Your task to perform on an android device: turn off picture-in-picture Image 0: 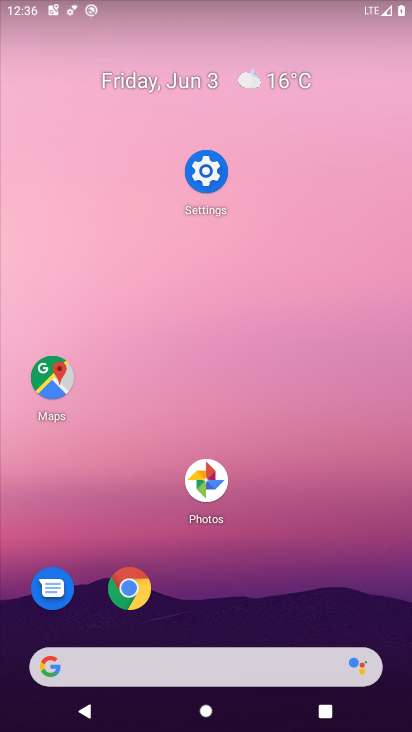
Step 0: click (215, 212)
Your task to perform on an android device: turn off picture-in-picture Image 1: 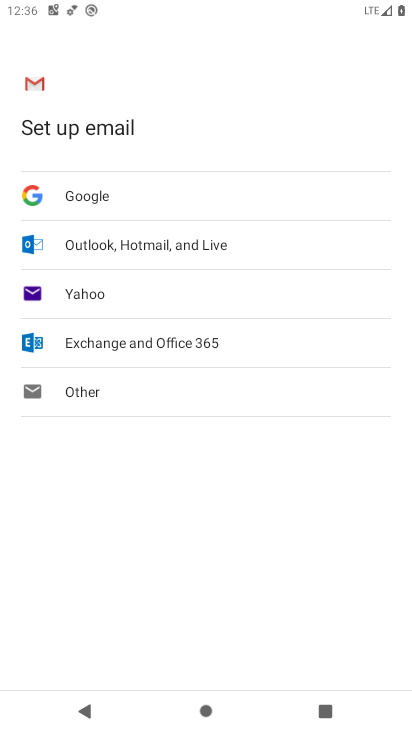
Step 1: drag from (193, 615) to (253, 184)
Your task to perform on an android device: turn off picture-in-picture Image 2: 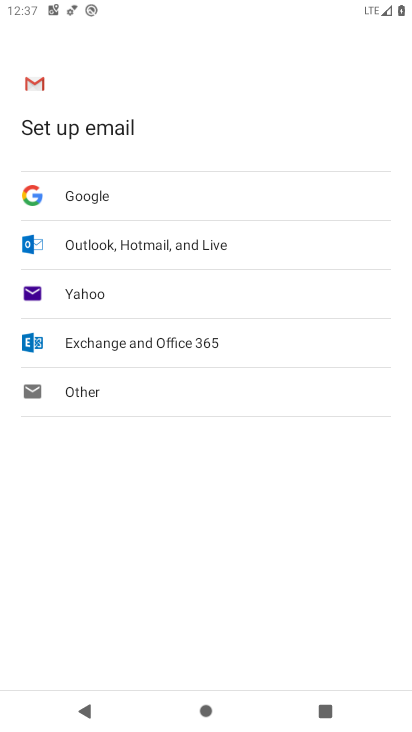
Step 2: drag from (177, 517) to (204, 269)
Your task to perform on an android device: turn off picture-in-picture Image 3: 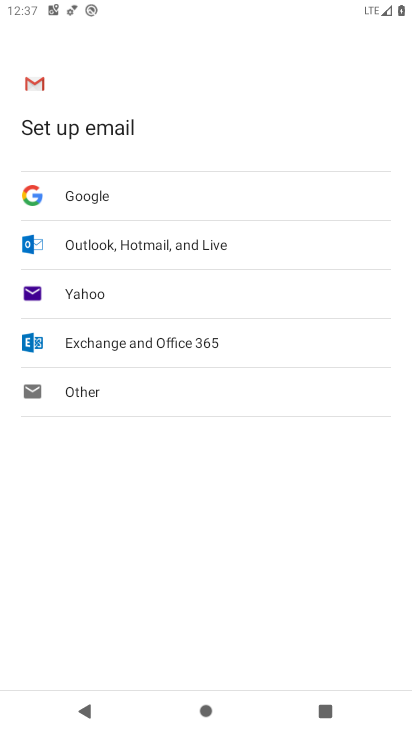
Step 3: drag from (185, 522) to (192, 269)
Your task to perform on an android device: turn off picture-in-picture Image 4: 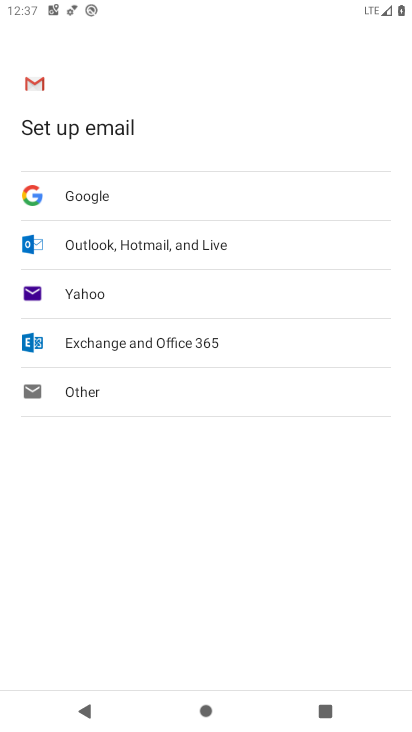
Step 4: drag from (222, 592) to (231, 533)
Your task to perform on an android device: turn off picture-in-picture Image 5: 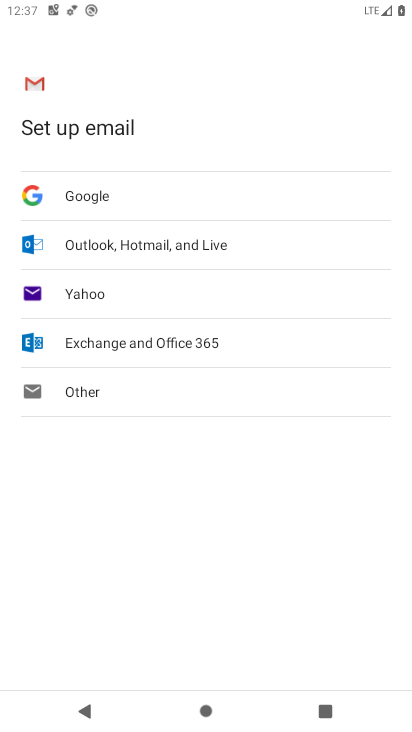
Step 5: drag from (215, 674) to (262, 409)
Your task to perform on an android device: turn off picture-in-picture Image 6: 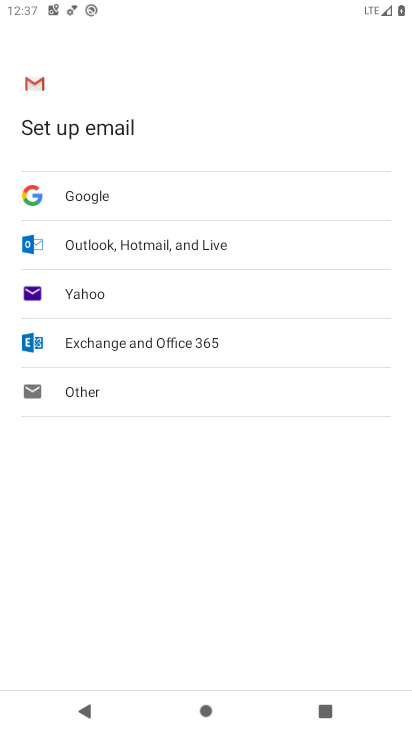
Step 6: drag from (261, 611) to (270, 372)
Your task to perform on an android device: turn off picture-in-picture Image 7: 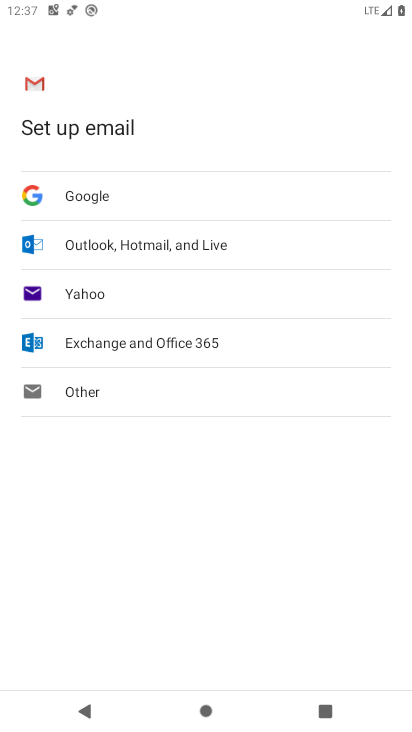
Step 7: drag from (204, 568) to (261, 335)
Your task to perform on an android device: turn off picture-in-picture Image 8: 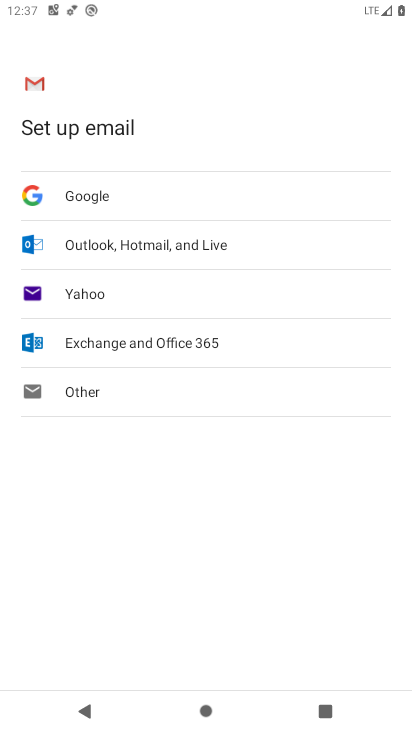
Step 8: press home button
Your task to perform on an android device: turn off picture-in-picture Image 9: 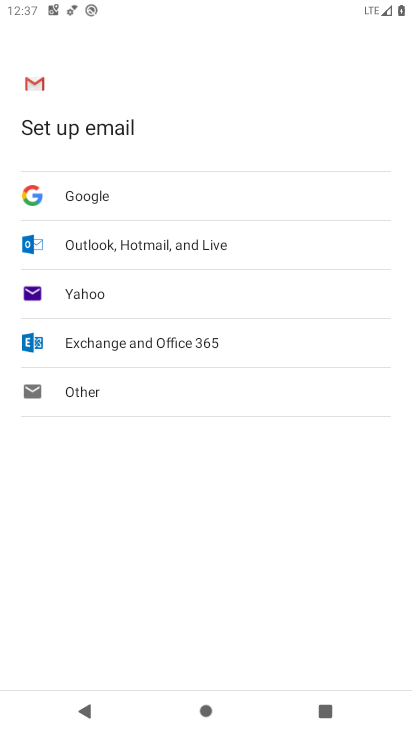
Step 9: drag from (232, 575) to (283, 49)
Your task to perform on an android device: turn off picture-in-picture Image 10: 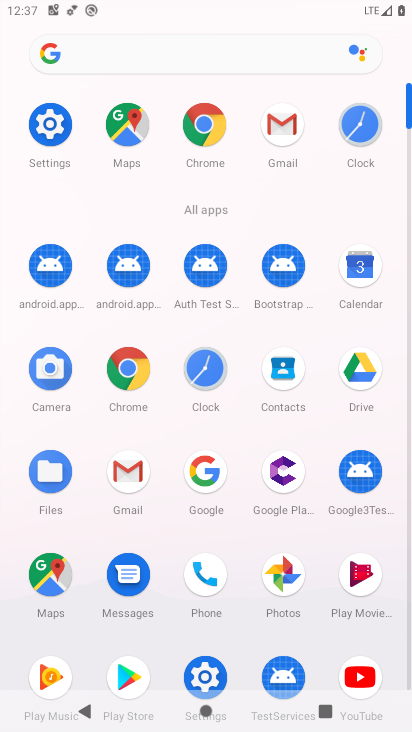
Step 10: click (51, 123)
Your task to perform on an android device: turn off picture-in-picture Image 11: 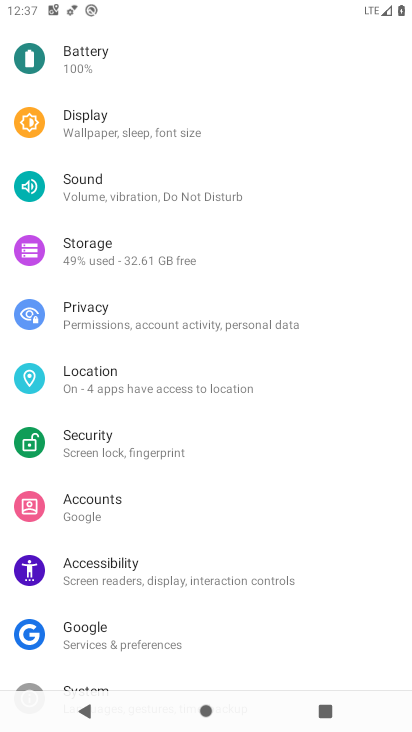
Step 11: drag from (224, 198) to (251, 728)
Your task to perform on an android device: turn off picture-in-picture Image 12: 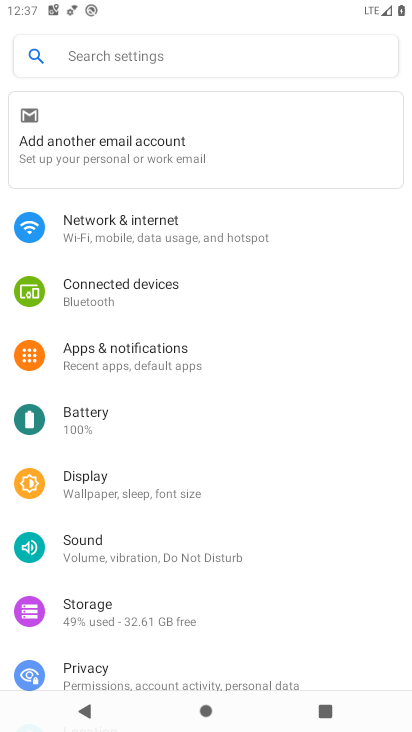
Step 12: click (254, 232)
Your task to perform on an android device: turn off picture-in-picture Image 13: 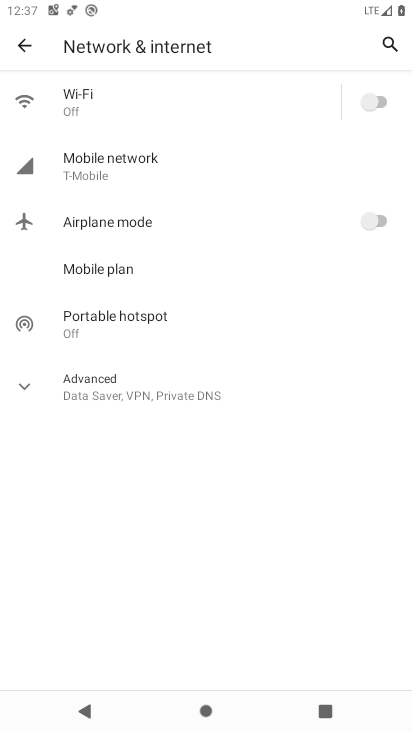
Step 13: click (113, 398)
Your task to perform on an android device: turn off picture-in-picture Image 14: 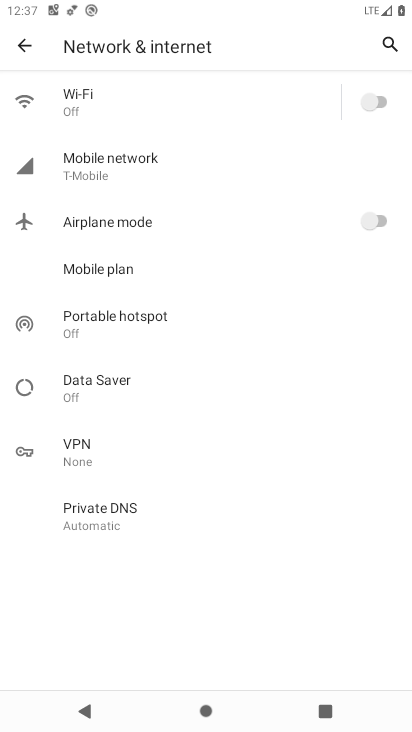
Step 14: click (12, 31)
Your task to perform on an android device: turn off picture-in-picture Image 15: 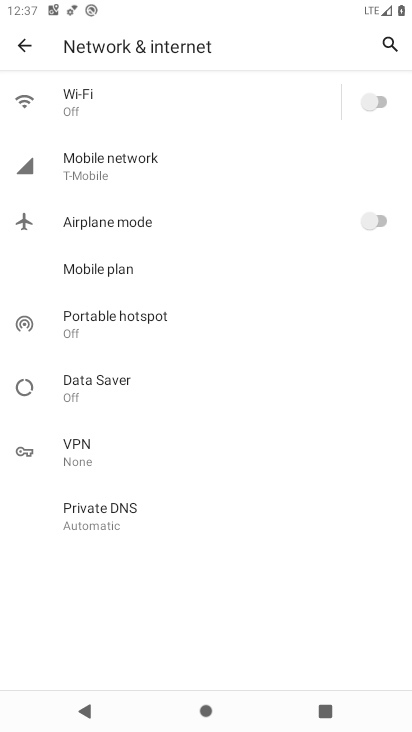
Step 15: click (22, 45)
Your task to perform on an android device: turn off picture-in-picture Image 16: 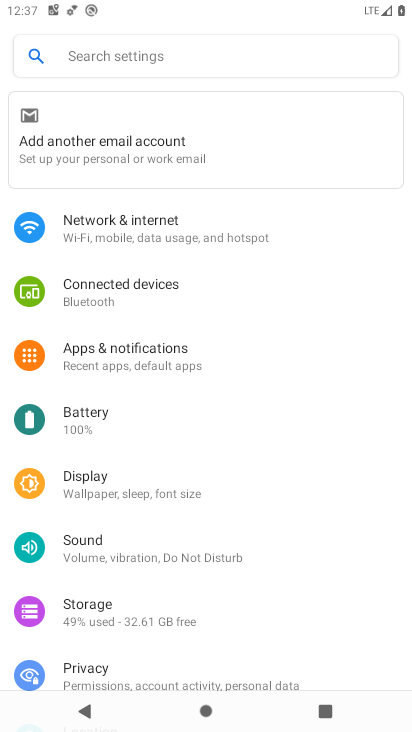
Step 16: drag from (197, 602) to (209, 168)
Your task to perform on an android device: turn off picture-in-picture Image 17: 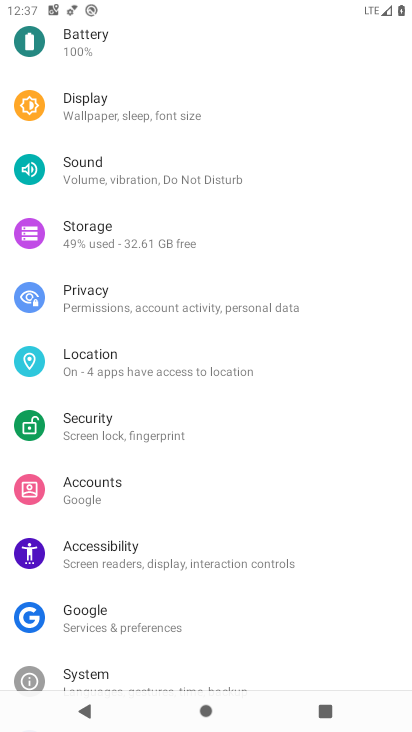
Step 17: drag from (171, 241) to (230, 722)
Your task to perform on an android device: turn off picture-in-picture Image 18: 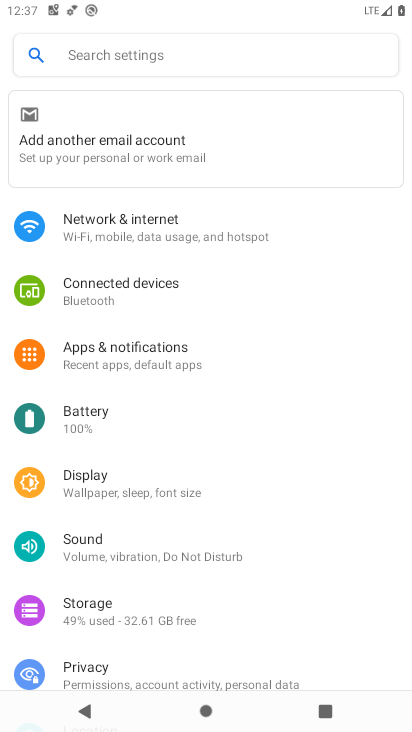
Step 18: click (152, 356)
Your task to perform on an android device: turn off picture-in-picture Image 19: 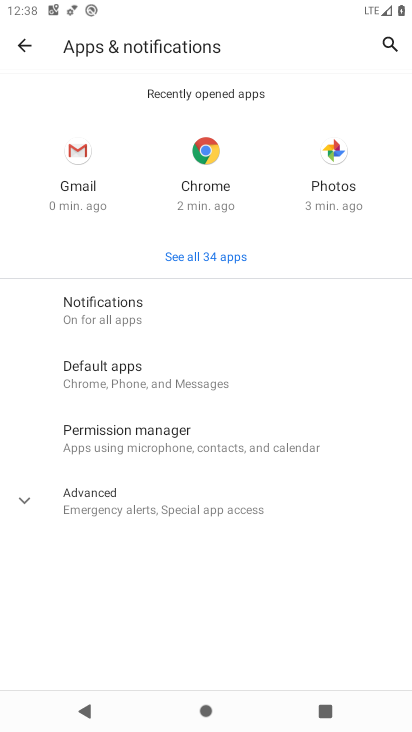
Step 19: click (222, 490)
Your task to perform on an android device: turn off picture-in-picture Image 20: 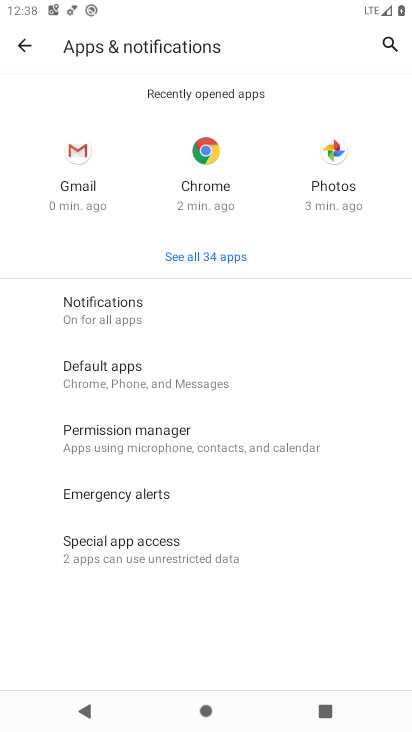
Step 20: drag from (262, 597) to (336, 211)
Your task to perform on an android device: turn off picture-in-picture Image 21: 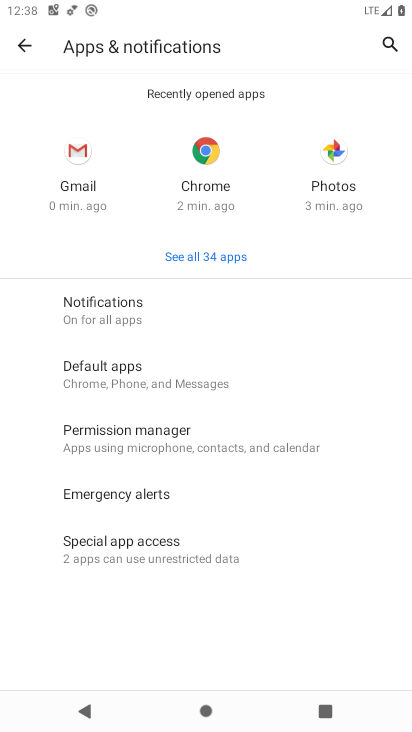
Step 21: click (174, 545)
Your task to perform on an android device: turn off picture-in-picture Image 22: 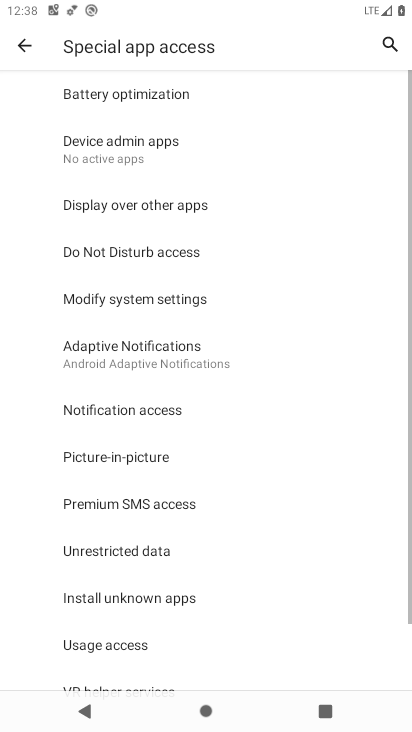
Step 22: drag from (295, 556) to (271, 56)
Your task to perform on an android device: turn off picture-in-picture Image 23: 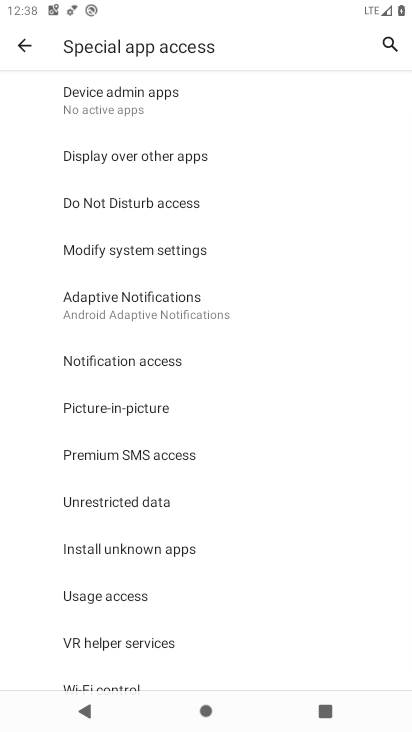
Step 23: click (132, 374)
Your task to perform on an android device: turn off picture-in-picture Image 24: 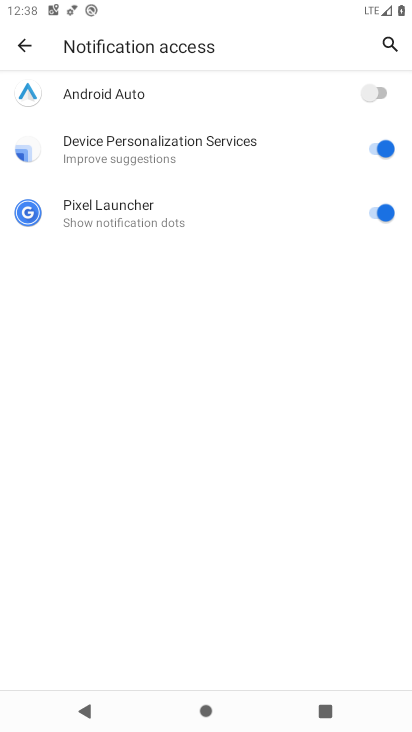
Step 24: click (31, 36)
Your task to perform on an android device: turn off picture-in-picture Image 25: 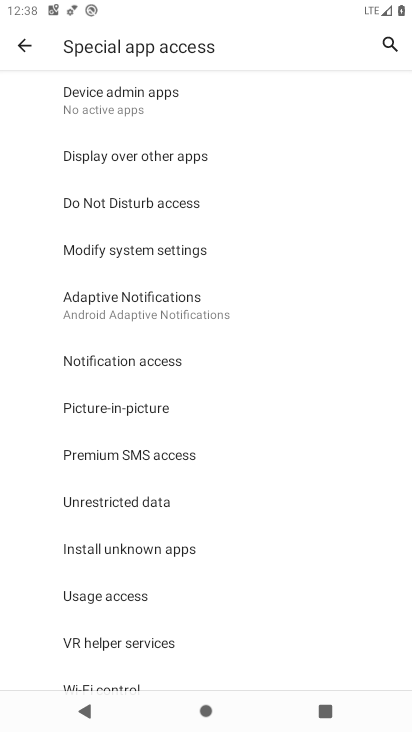
Step 25: click (187, 398)
Your task to perform on an android device: turn off picture-in-picture Image 26: 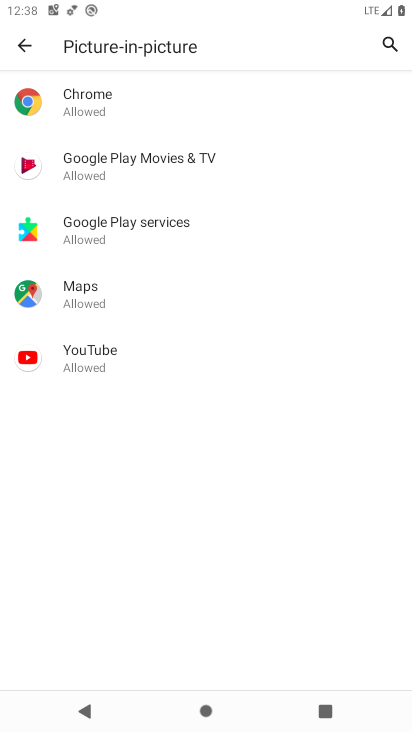
Step 26: task complete